Your task to perform on an android device: Open Chrome and go to the settings page Image 0: 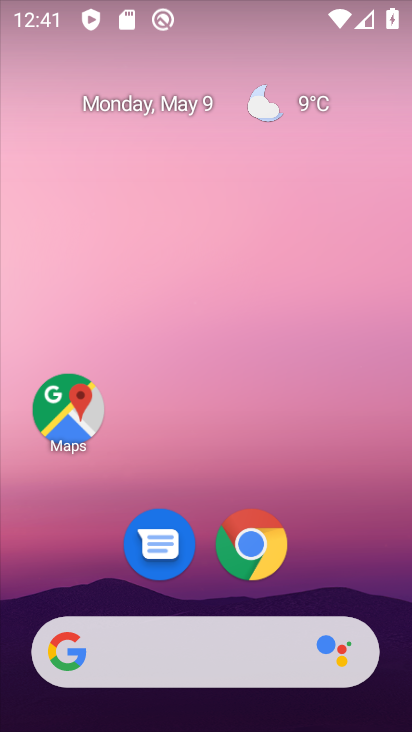
Step 0: click (260, 531)
Your task to perform on an android device: Open Chrome and go to the settings page Image 1: 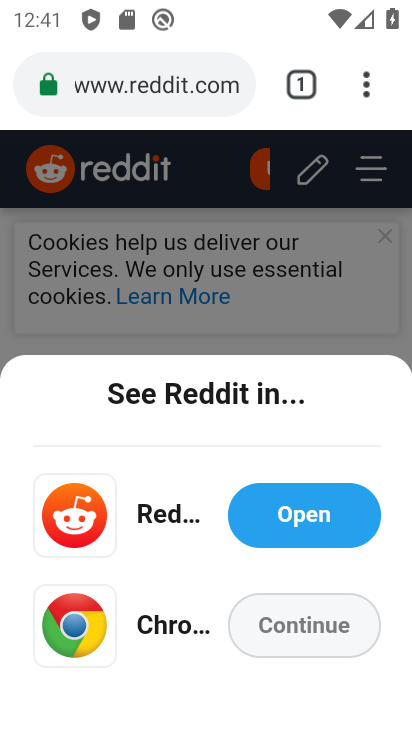
Step 1: click (293, 634)
Your task to perform on an android device: Open Chrome and go to the settings page Image 2: 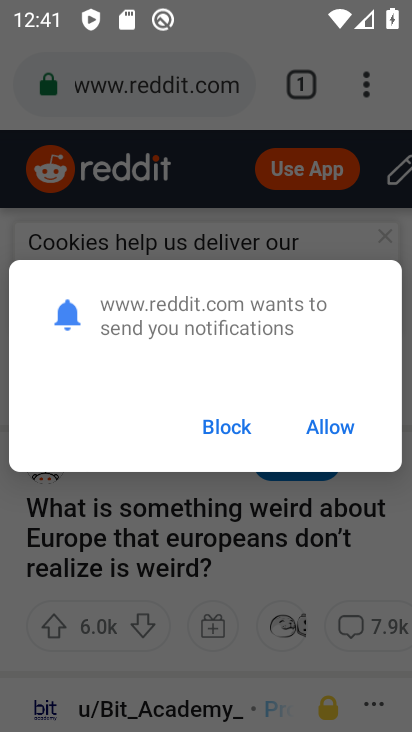
Step 2: click (245, 425)
Your task to perform on an android device: Open Chrome and go to the settings page Image 3: 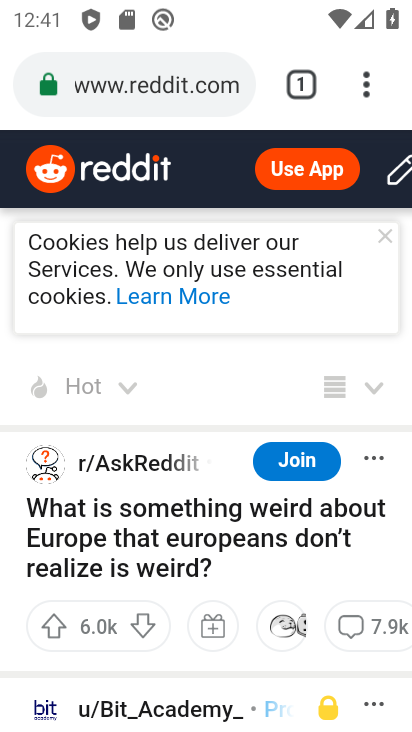
Step 3: click (365, 88)
Your task to perform on an android device: Open Chrome and go to the settings page Image 4: 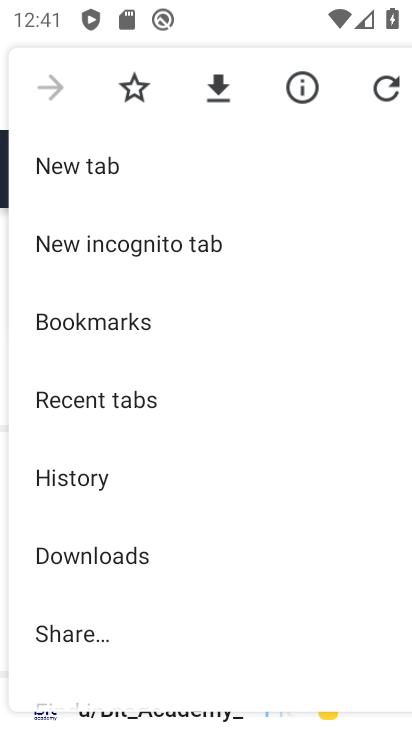
Step 4: drag from (171, 555) to (155, 237)
Your task to perform on an android device: Open Chrome and go to the settings page Image 5: 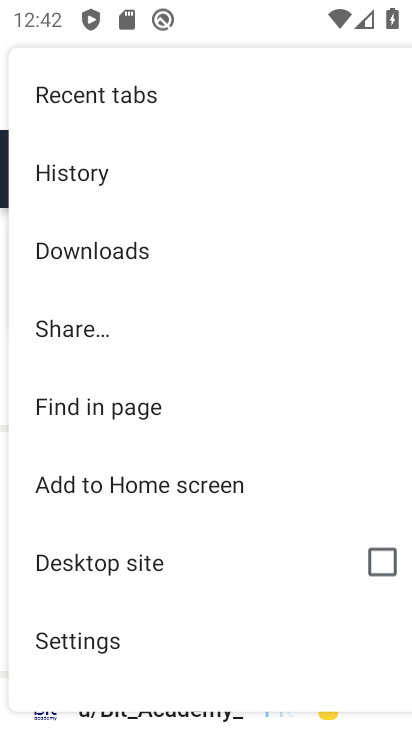
Step 5: click (98, 641)
Your task to perform on an android device: Open Chrome and go to the settings page Image 6: 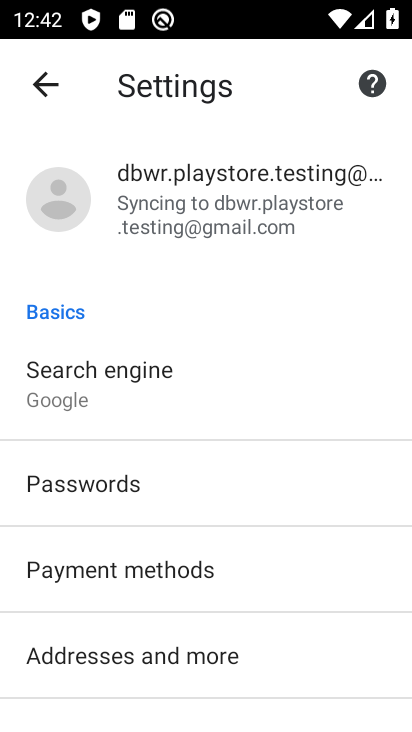
Step 6: task complete